Your task to perform on an android device: see creations saved in the google photos Image 0: 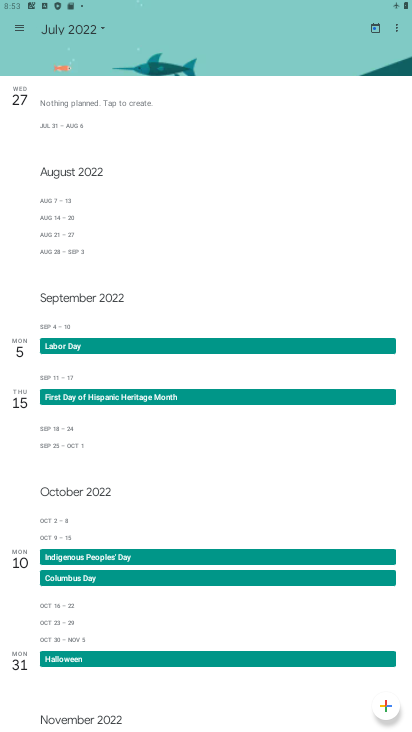
Step 0: press home button
Your task to perform on an android device: see creations saved in the google photos Image 1: 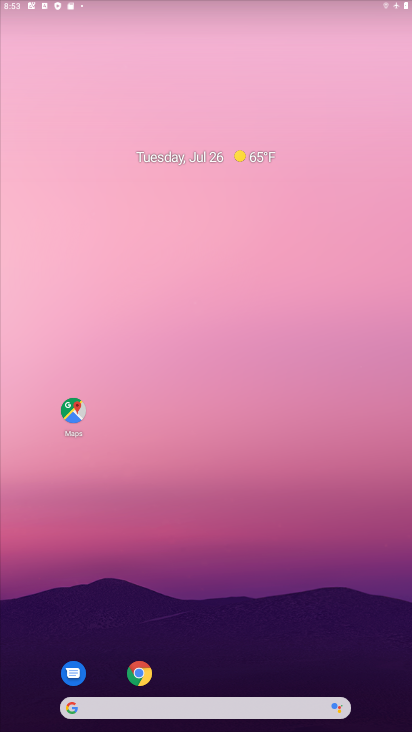
Step 1: drag from (232, 629) to (186, 3)
Your task to perform on an android device: see creations saved in the google photos Image 2: 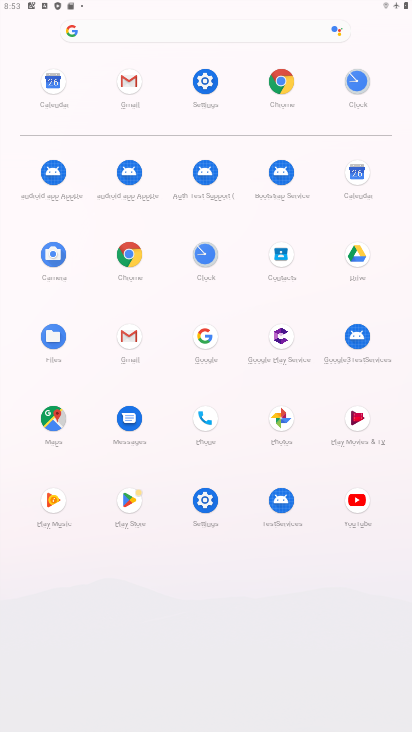
Step 2: click (277, 440)
Your task to perform on an android device: see creations saved in the google photos Image 3: 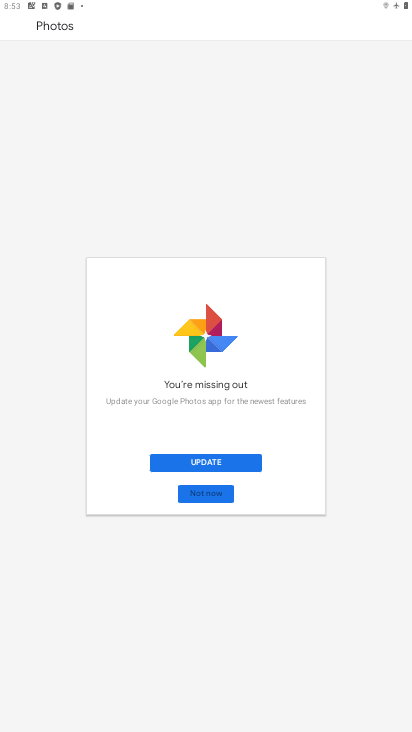
Step 3: click (210, 498)
Your task to perform on an android device: see creations saved in the google photos Image 4: 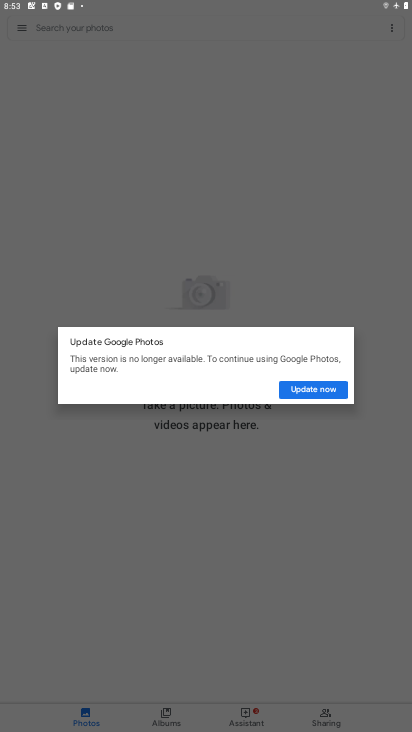
Step 4: click (178, 38)
Your task to perform on an android device: see creations saved in the google photos Image 5: 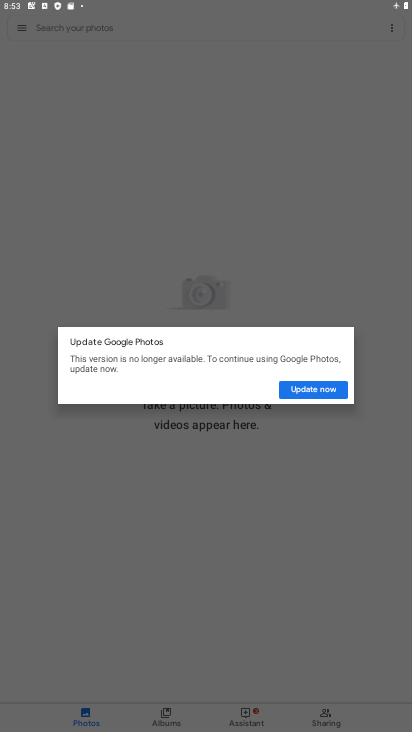
Step 5: click (150, 36)
Your task to perform on an android device: see creations saved in the google photos Image 6: 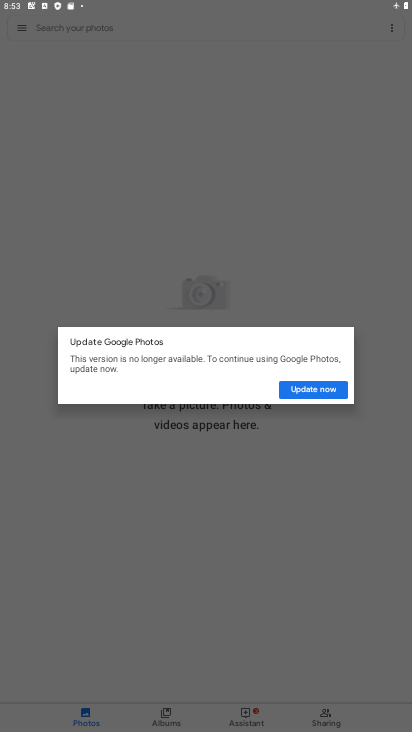
Step 6: click (68, 16)
Your task to perform on an android device: see creations saved in the google photos Image 7: 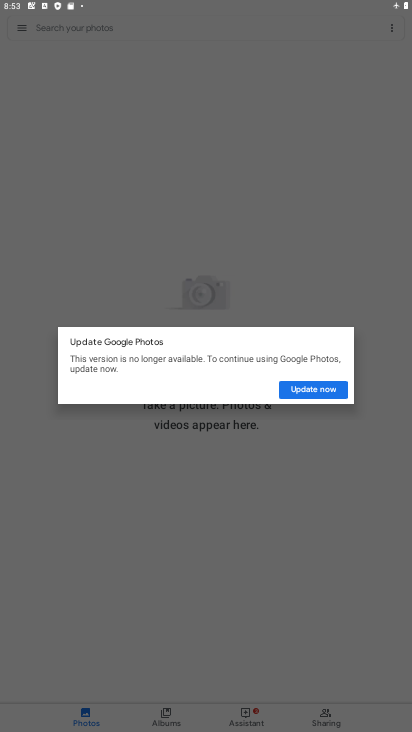
Step 7: click (64, 27)
Your task to perform on an android device: see creations saved in the google photos Image 8: 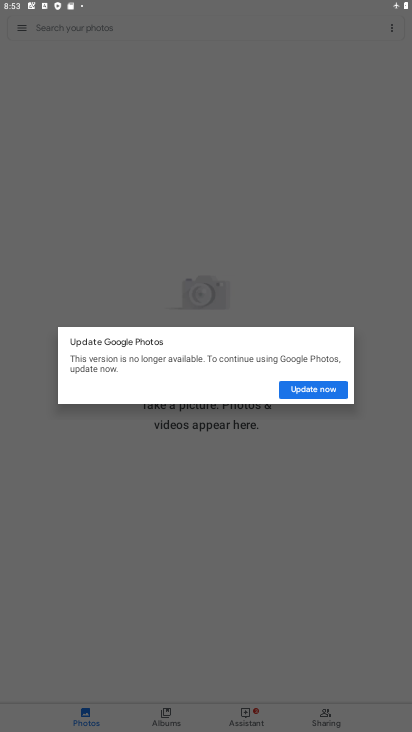
Step 8: click (63, 33)
Your task to perform on an android device: see creations saved in the google photos Image 9: 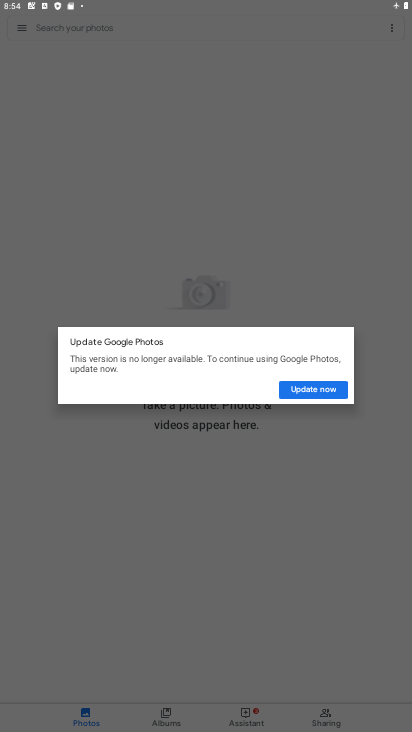
Step 9: click (308, 394)
Your task to perform on an android device: see creations saved in the google photos Image 10: 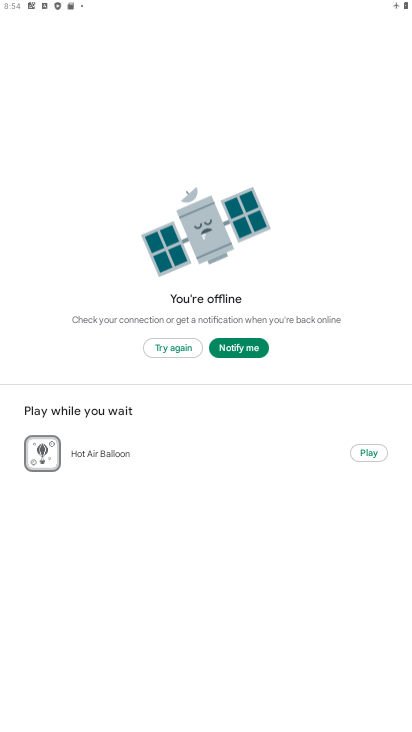
Step 10: task complete